Your task to perform on an android device: Open battery settings Image 0: 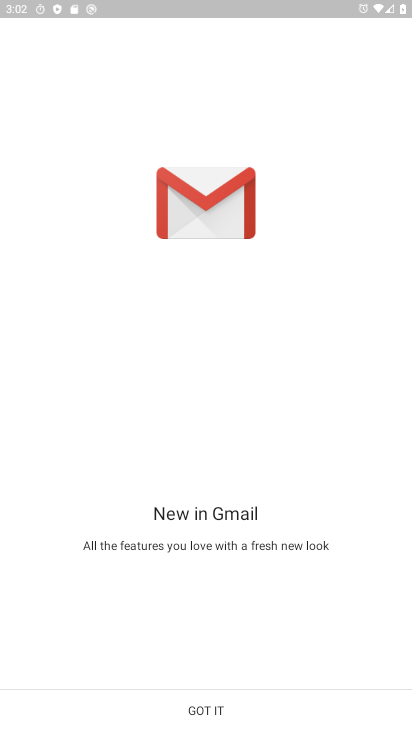
Step 0: press home button
Your task to perform on an android device: Open battery settings Image 1: 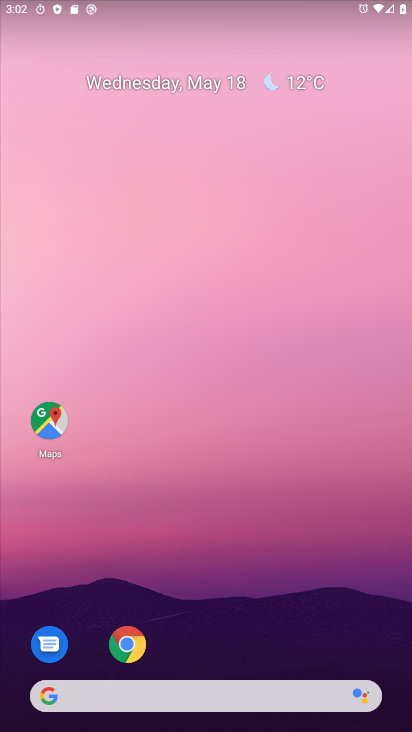
Step 1: drag from (399, 687) to (261, 177)
Your task to perform on an android device: Open battery settings Image 2: 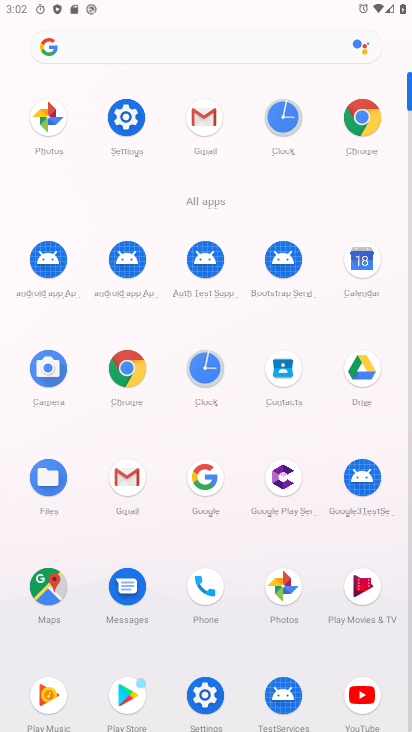
Step 2: click (203, 692)
Your task to perform on an android device: Open battery settings Image 3: 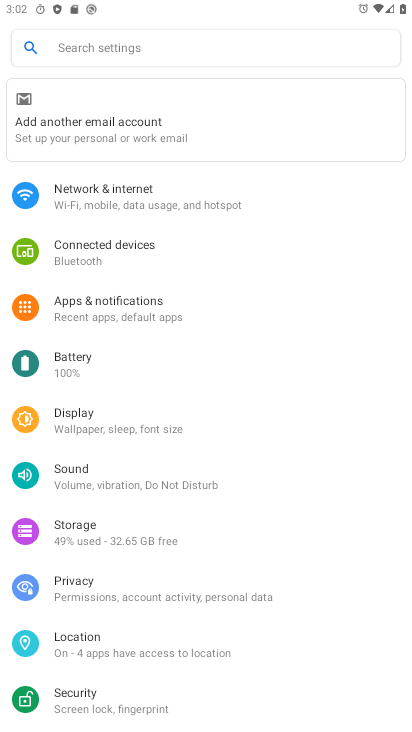
Step 3: click (74, 364)
Your task to perform on an android device: Open battery settings Image 4: 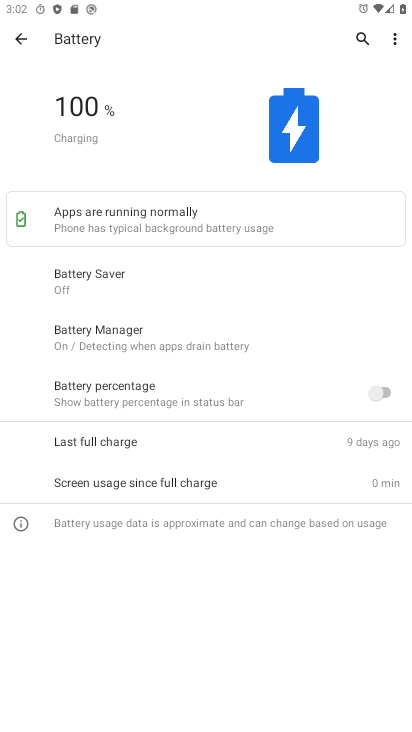
Step 4: task complete